Your task to perform on an android device: check data usage Image 0: 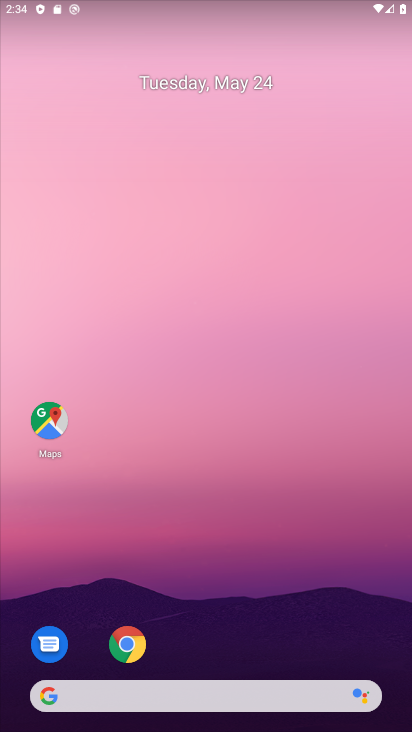
Step 0: drag from (367, 660) to (252, 214)
Your task to perform on an android device: check data usage Image 1: 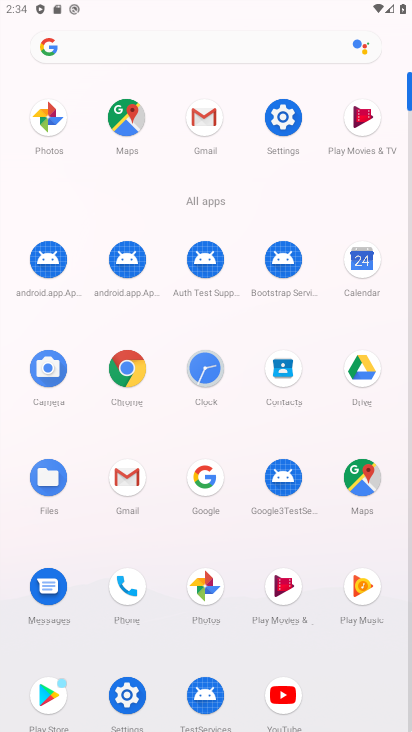
Step 1: click (107, 669)
Your task to perform on an android device: check data usage Image 2: 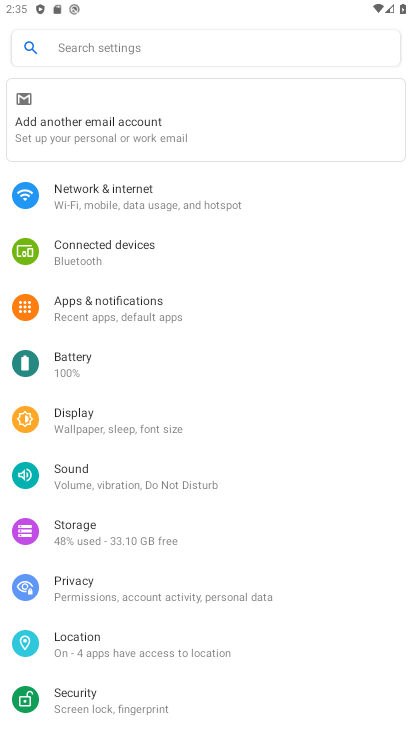
Step 2: click (129, 190)
Your task to perform on an android device: check data usage Image 3: 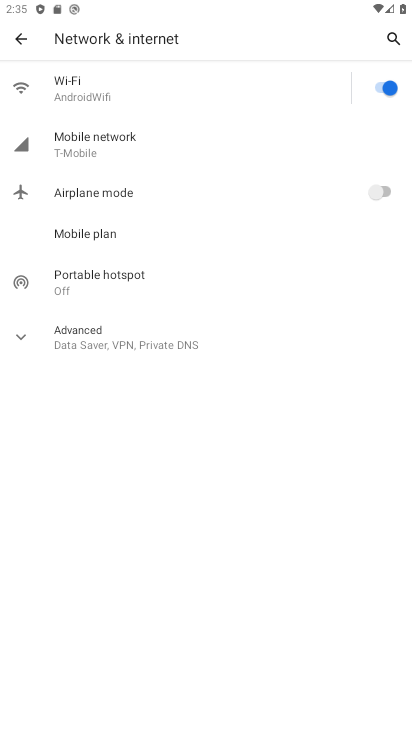
Step 3: click (151, 156)
Your task to perform on an android device: check data usage Image 4: 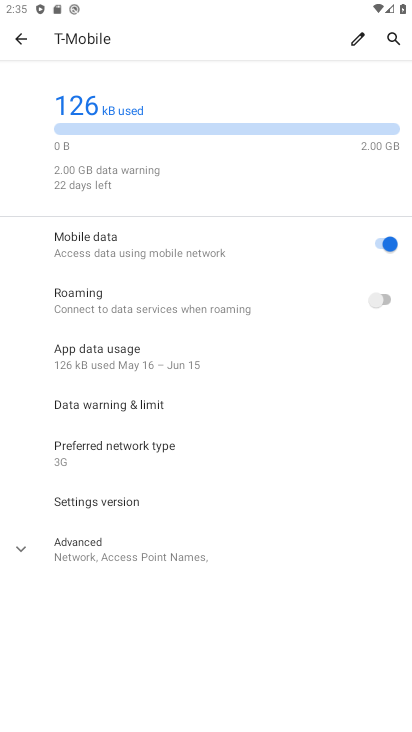
Step 4: task complete